Your task to perform on an android device: Go to ESPN.com Image 0: 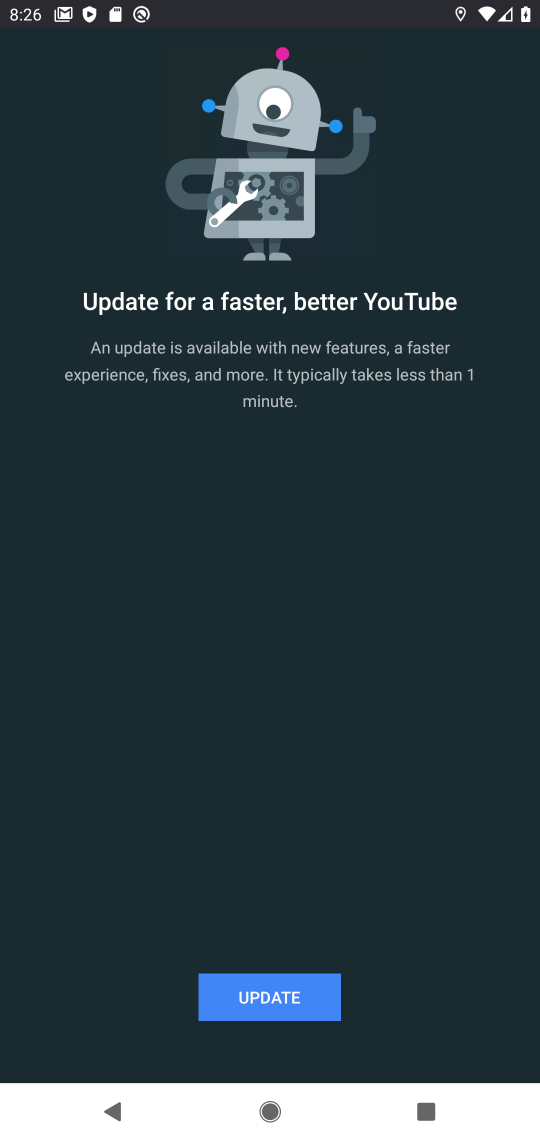
Step 0: press home button
Your task to perform on an android device: Go to ESPN.com Image 1: 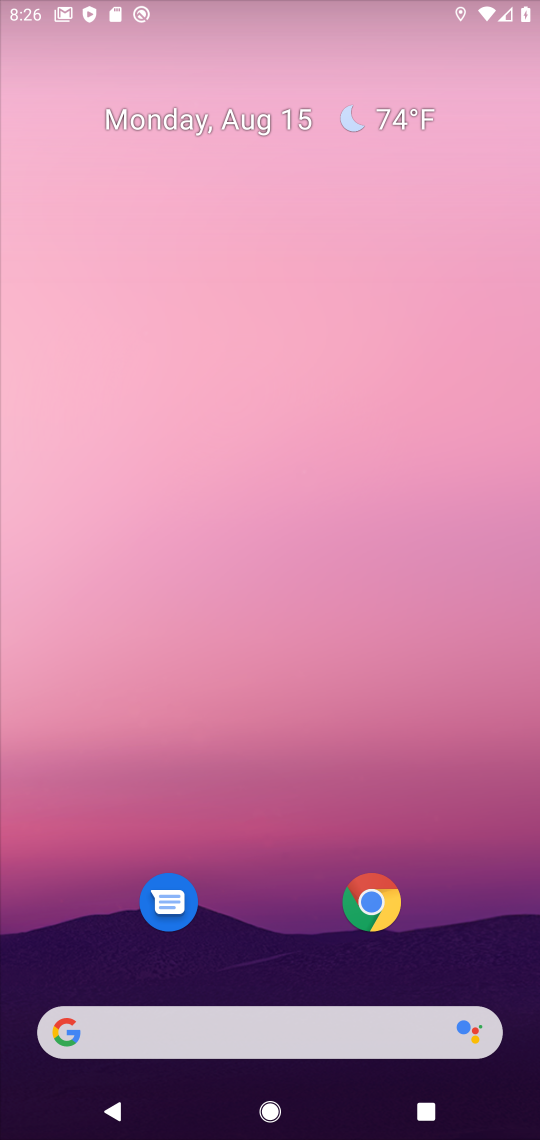
Step 1: drag from (408, 698) to (207, 19)
Your task to perform on an android device: Go to ESPN.com Image 2: 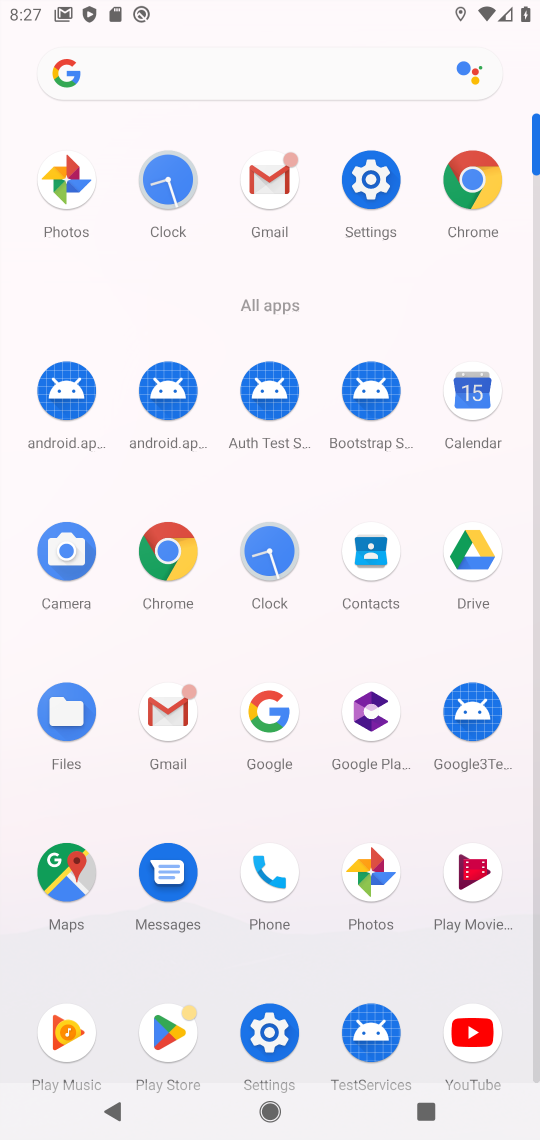
Step 2: click (269, 704)
Your task to perform on an android device: Go to ESPN.com Image 3: 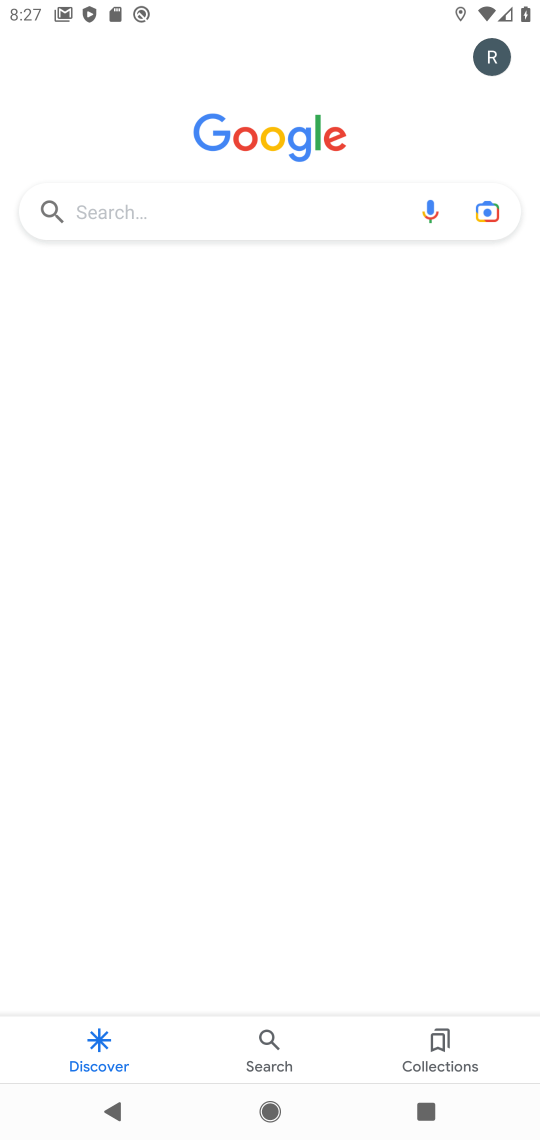
Step 3: click (187, 193)
Your task to perform on an android device: Go to ESPN.com Image 4: 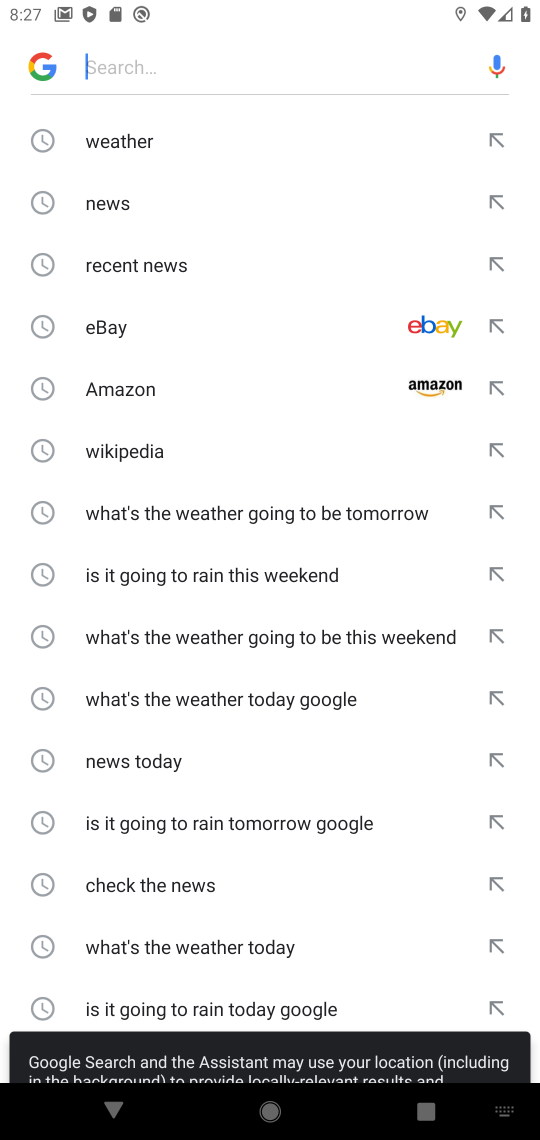
Step 4: type "ESPN.com"
Your task to perform on an android device: Go to ESPN.com Image 5: 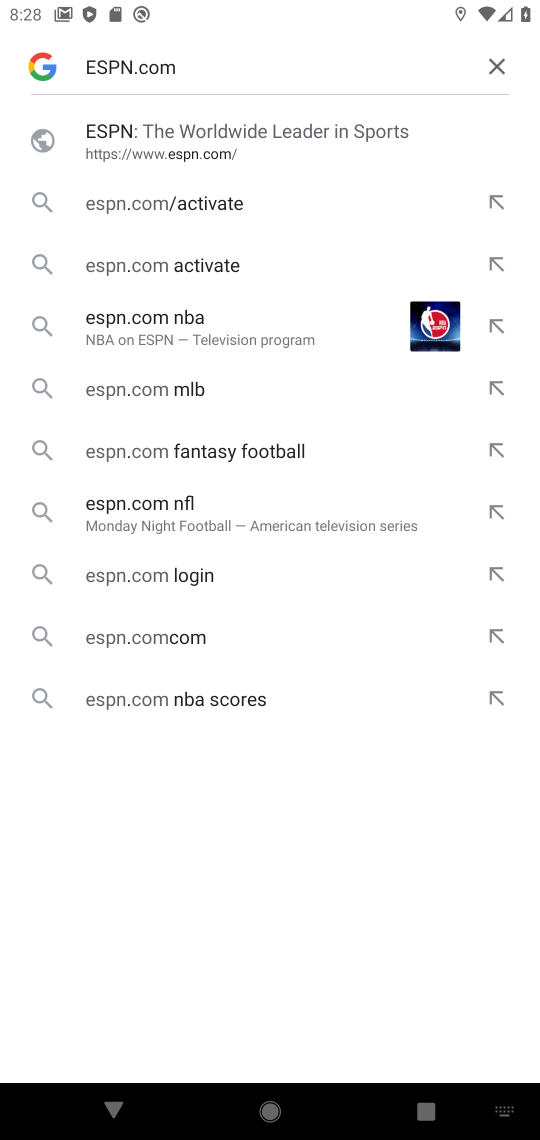
Step 5: click (150, 139)
Your task to perform on an android device: Go to ESPN.com Image 6: 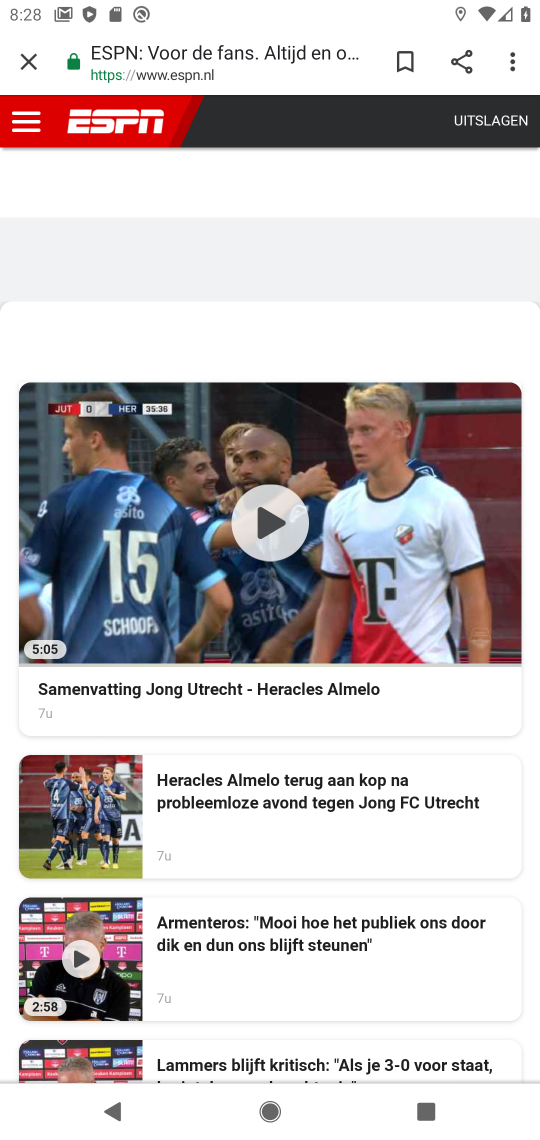
Step 6: task complete